Your task to perform on an android device: toggle notifications settings in the gmail app Image 0: 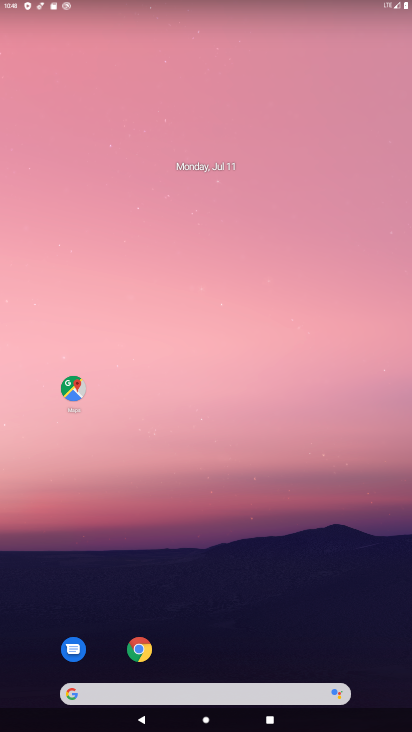
Step 0: drag from (317, 617) to (224, 98)
Your task to perform on an android device: toggle notifications settings in the gmail app Image 1: 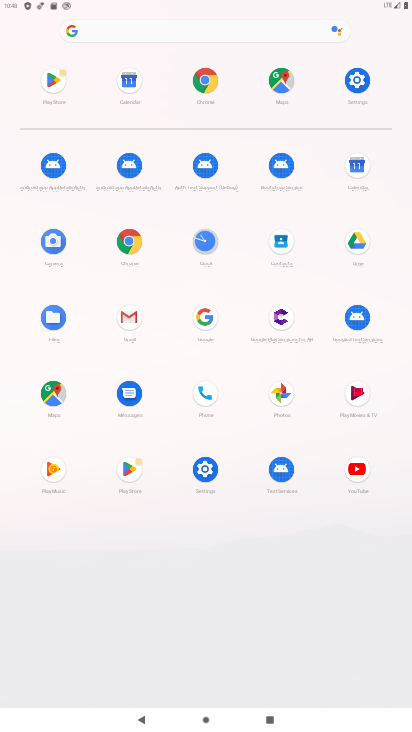
Step 1: click (129, 314)
Your task to perform on an android device: toggle notifications settings in the gmail app Image 2: 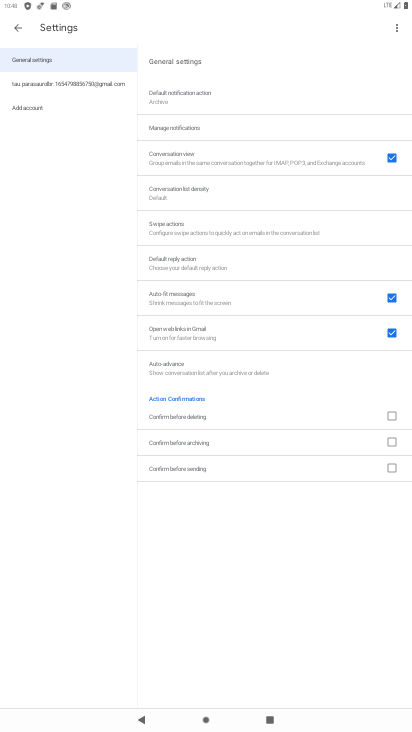
Step 2: click (97, 81)
Your task to perform on an android device: toggle notifications settings in the gmail app Image 3: 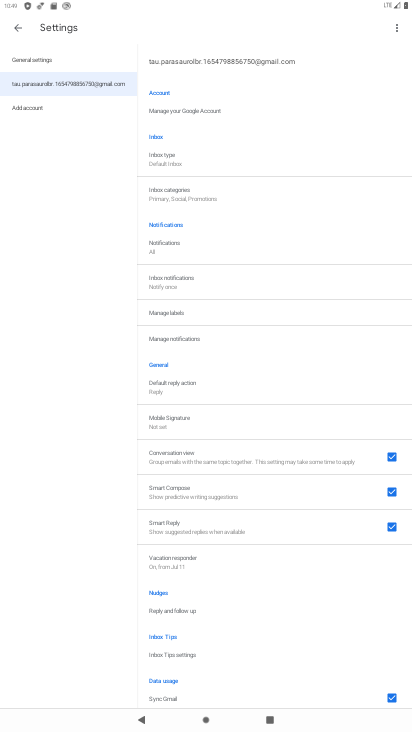
Step 3: click (165, 338)
Your task to perform on an android device: toggle notifications settings in the gmail app Image 4: 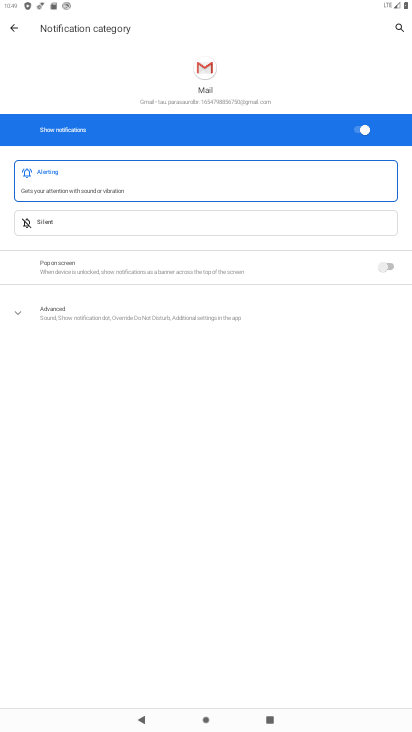
Step 4: click (367, 131)
Your task to perform on an android device: toggle notifications settings in the gmail app Image 5: 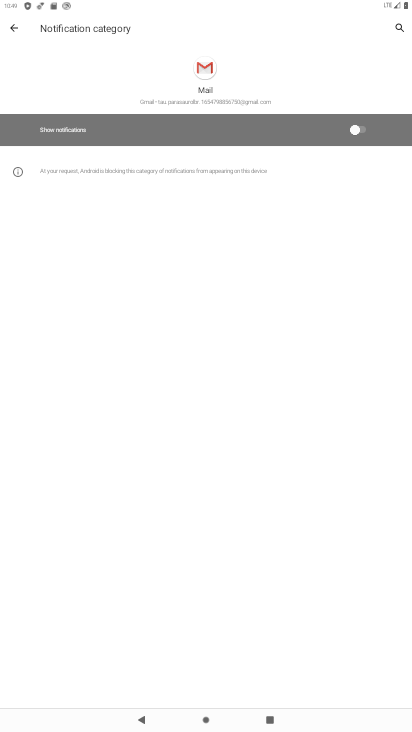
Step 5: task complete